Your task to perform on an android device: What's the weather? Image 0: 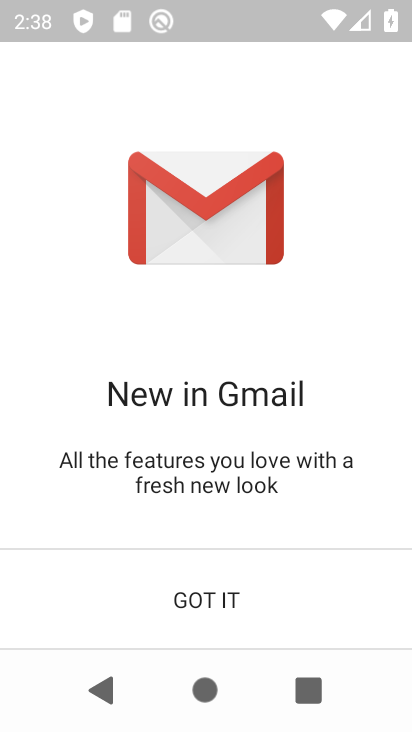
Step 0: press home button
Your task to perform on an android device: What's the weather? Image 1: 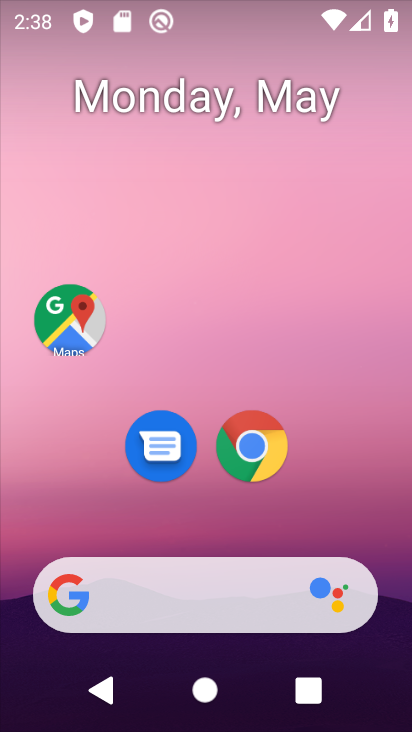
Step 1: task complete